Your task to perform on an android device: Search for vegetarian restaurants on Maps Image 0: 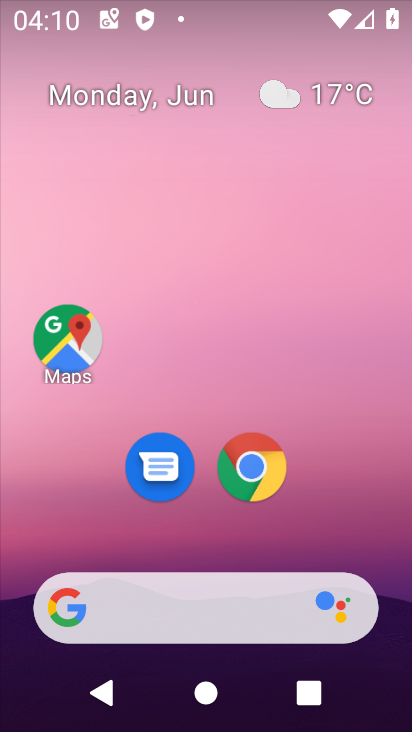
Step 0: click (58, 349)
Your task to perform on an android device: Search for vegetarian restaurants on Maps Image 1: 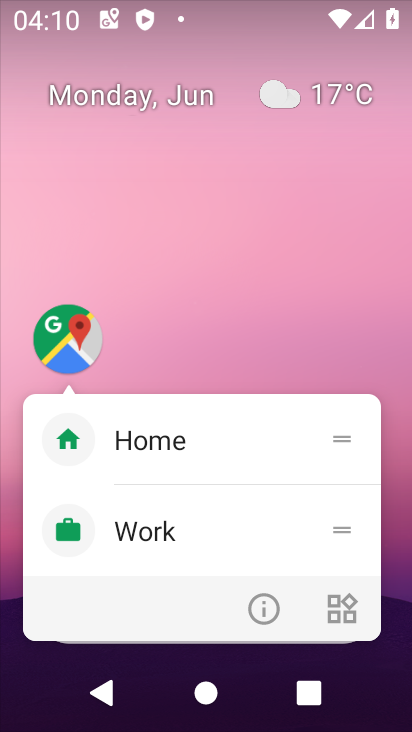
Step 1: click (58, 349)
Your task to perform on an android device: Search for vegetarian restaurants on Maps Image 2: 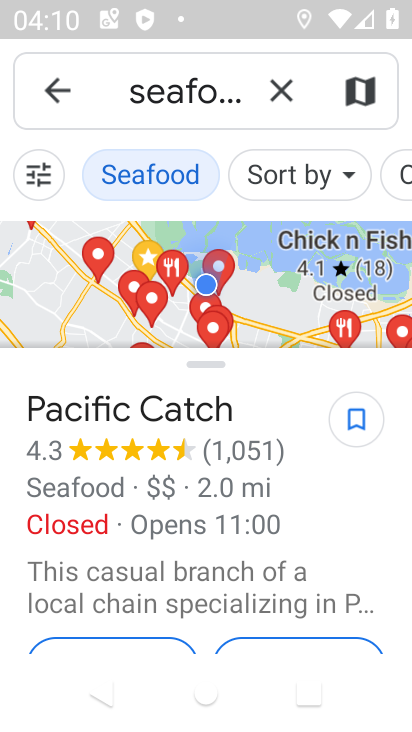
Step 2: click (282, 89)
Your task to perform on an android device: Search for vegetarian restaurants on Maps Image 3: 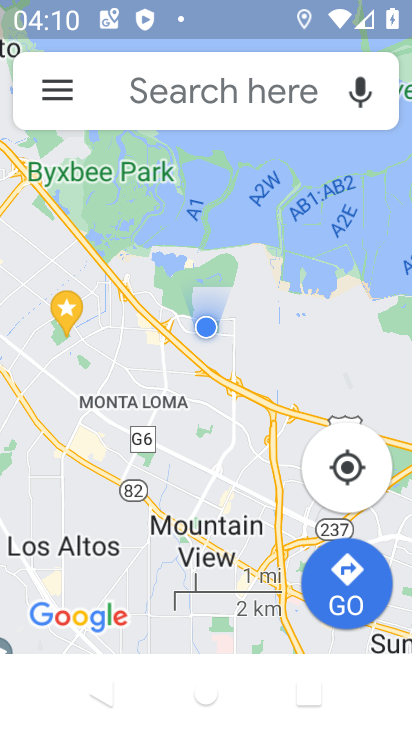
Step 3: click (157, 88)
Your task to perform on an android device: Search for vegetarian restaurants on Maps Image 4: 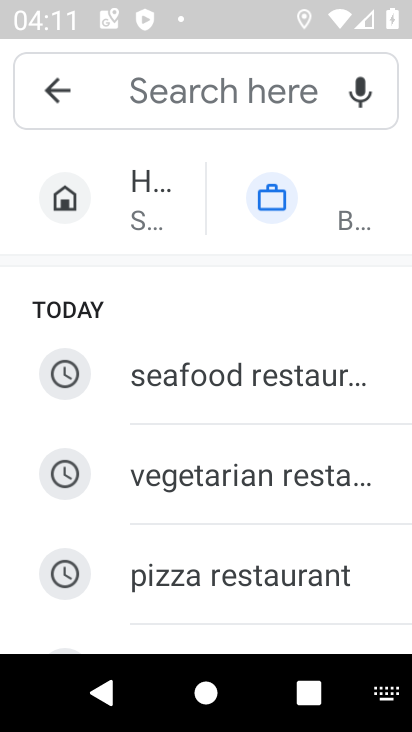
Step 4: type "vegetarian restaurants"
Your task to perform on an android device: Search for vegetarian restaurants on Maps Image 5: 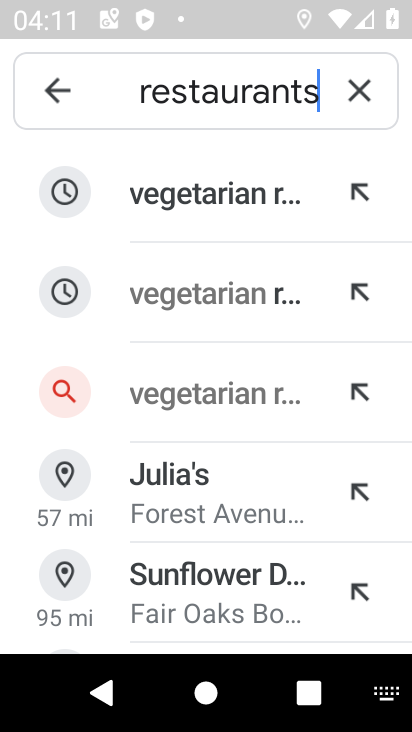
Step 5: click (199, 209)
Your task to perform on an android device: Search for vegetarian restaurants on Maps Image 6: 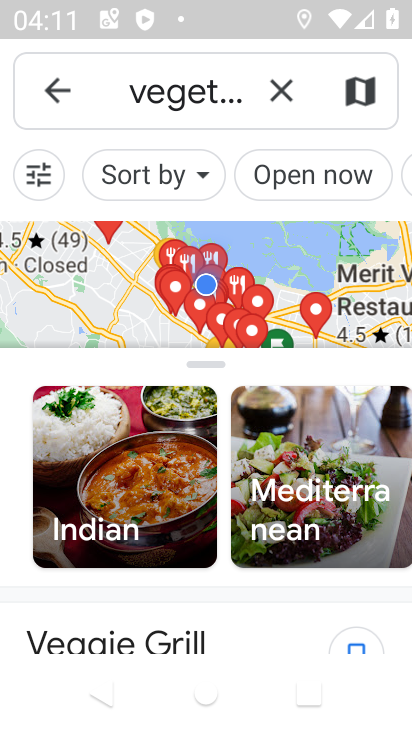
Step 6: task complete